Your task to perform on an android device: check battery use Image 0: 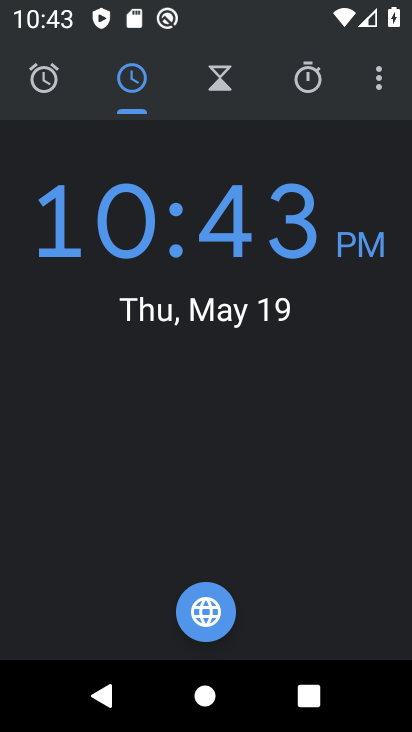
Step 0: click (378, 96)
Your task to perform on an android device: check battery use Image 1: 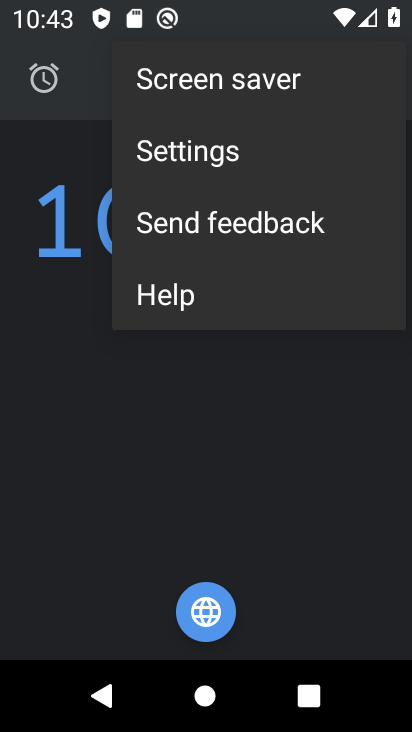
Step 1: click (250, 153)
Your task to perform on an android device: check battery use Image 2: 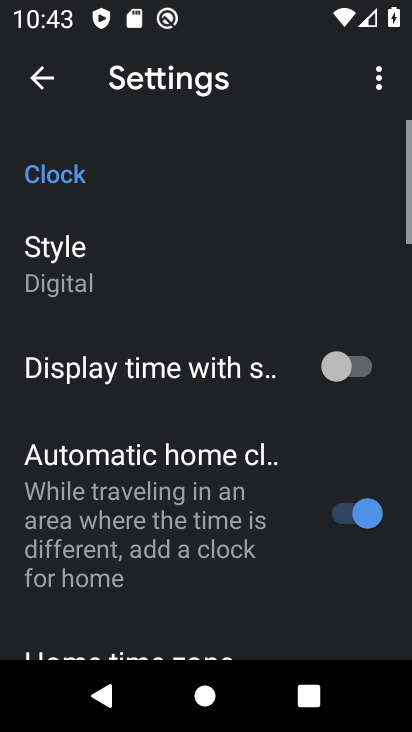
Step 2: press home button
Your task to perform on an android device: check battery use Image 3: 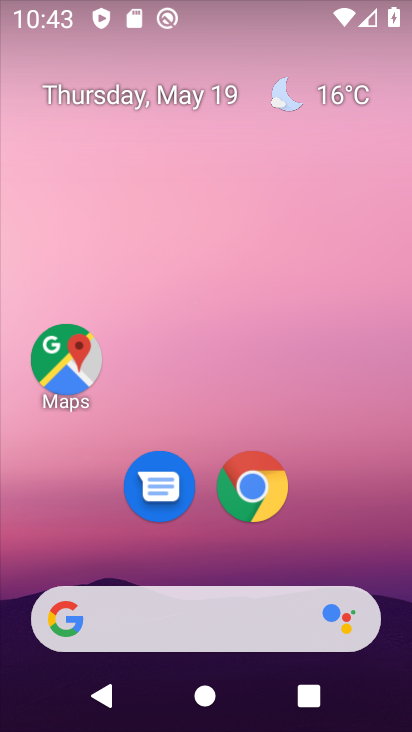
Step 3: drag from (352, 506) to (347, 133)
Your task to perform on an android device: check battery use Image 4: 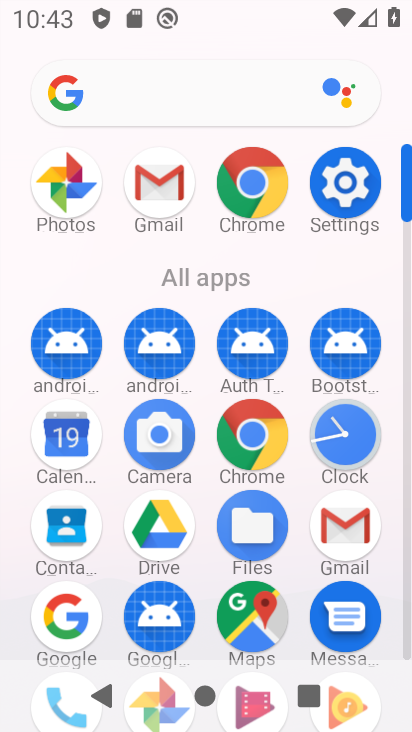
Step 4: click (370, 184)
Your task to perform on an android device: check battery use Image 5: 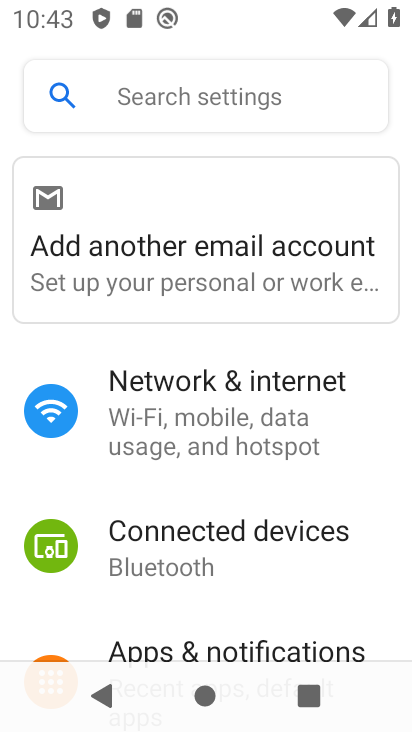
Step 5: drag from (242, 480) to (223, 172)
Your task to perform on an android device: check battery use Image 6: 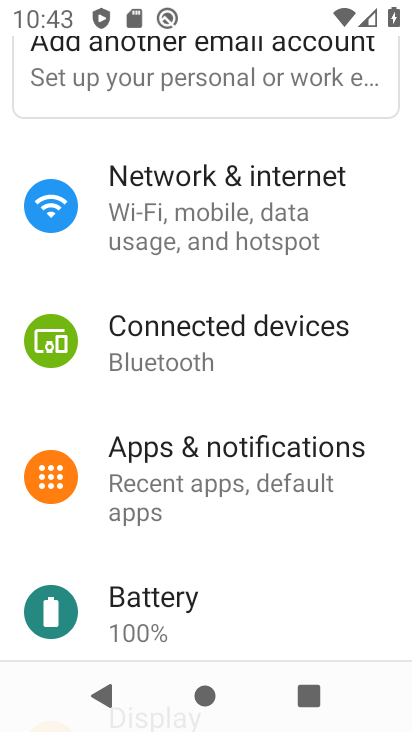
Step 6: click (172, 636)
Your task to perform on an android device: check battery use Image 7: 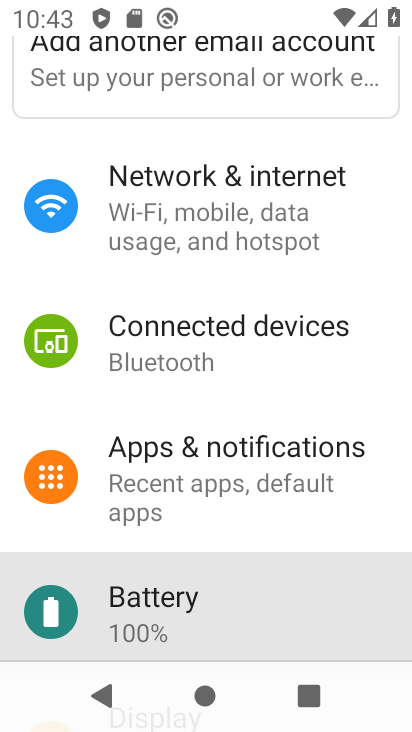
Step 7: task complete